Your task to perform on an android device: Open network settings Image 0: 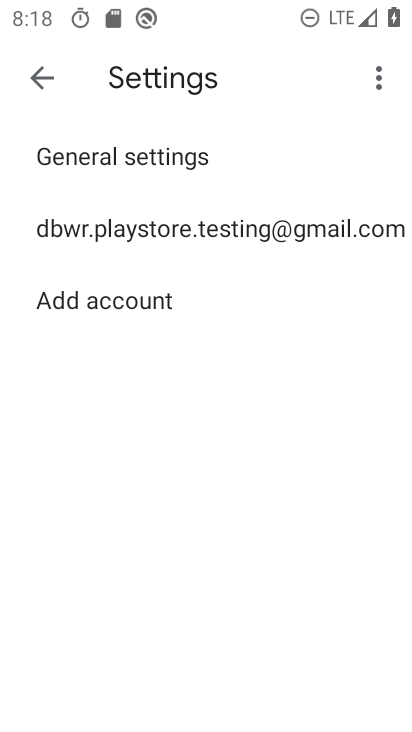
Step 0: press home button
Your task to perform on an android device: Open network settings Image 1: 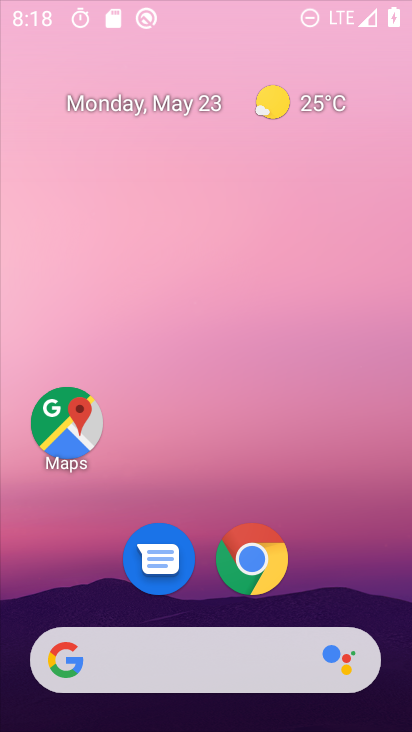
Step 1: drag from (373, 674) to (298, 34)
Your task to perform on an android device: Open network settings Image 2: 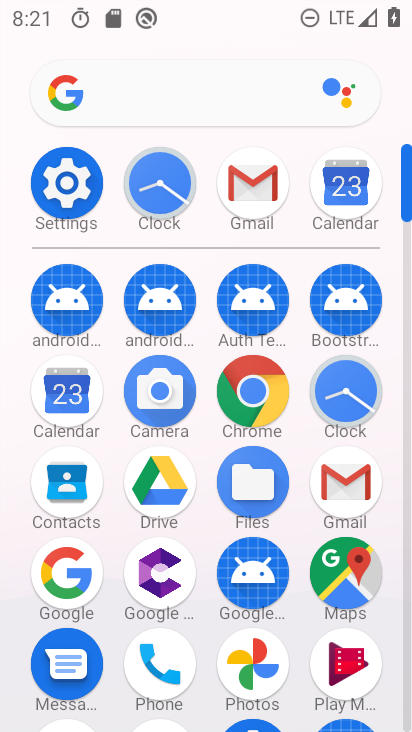
Step 2: click (69, 198)
Your task to perform on an android device: Open network settings Image 3: 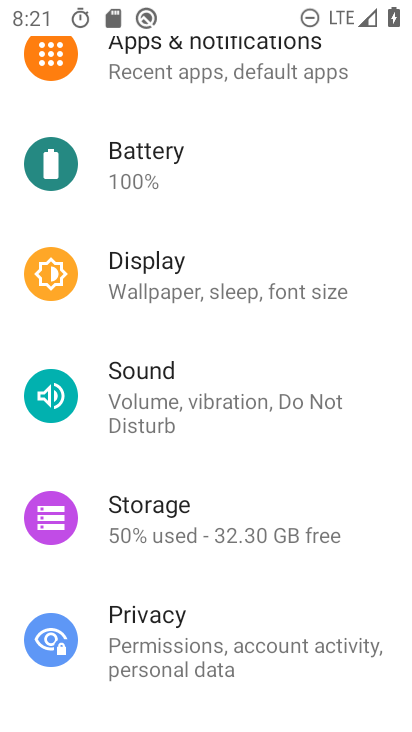
Step 3: drag from (168, 114) to (147, 689)
Your task to perform on an android device: Open network settings Image 4: 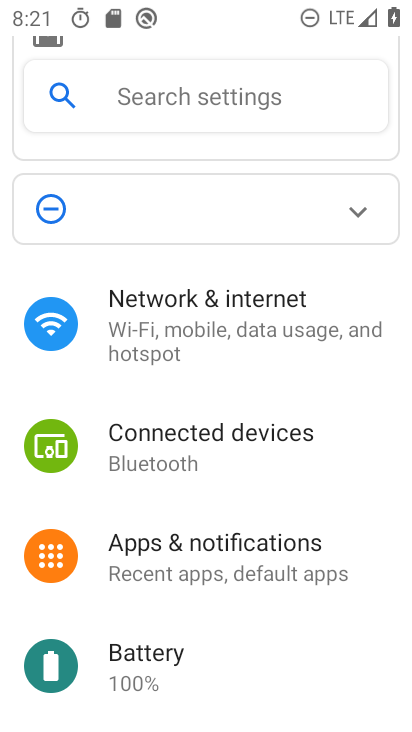
Step 4: click (226, 279)
Your task to perform on an android device: Open network settings Image 5: 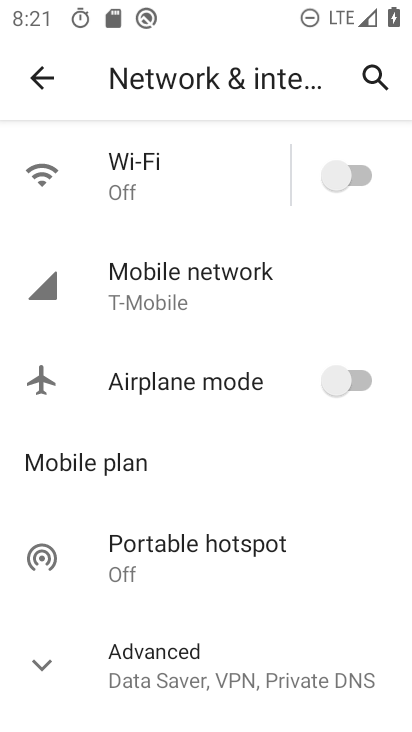
Step 5: task complete